Your task to perform on an android device: check out phone information Image 0: 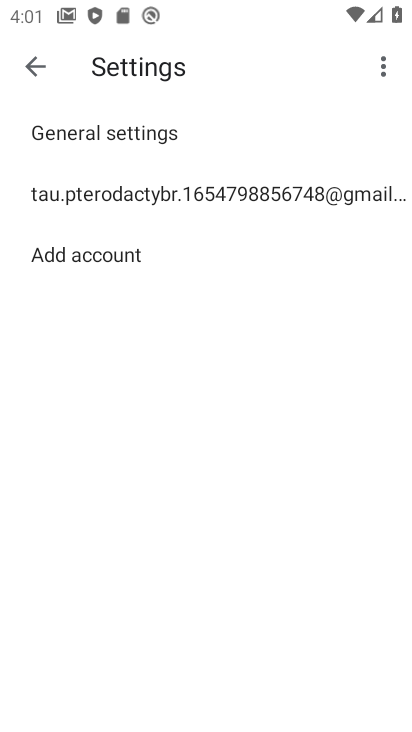
Step 0: press home button
Your task to perform on an android device: check out phone information Image 1: 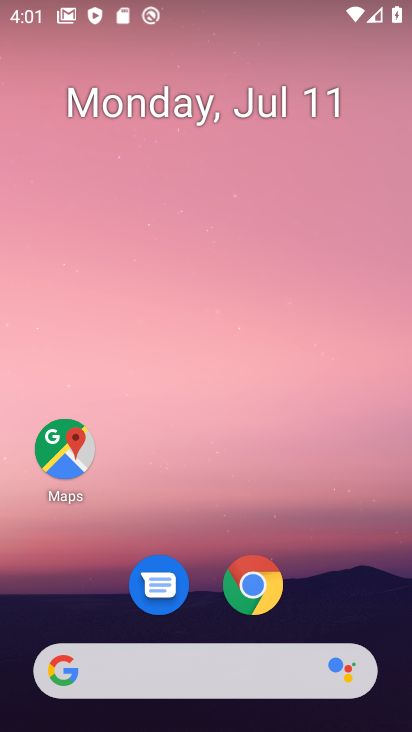
Step 1: drag from (238, 482) to (345, 32)
Your task to perform on an android device: check out phone information Image 2: 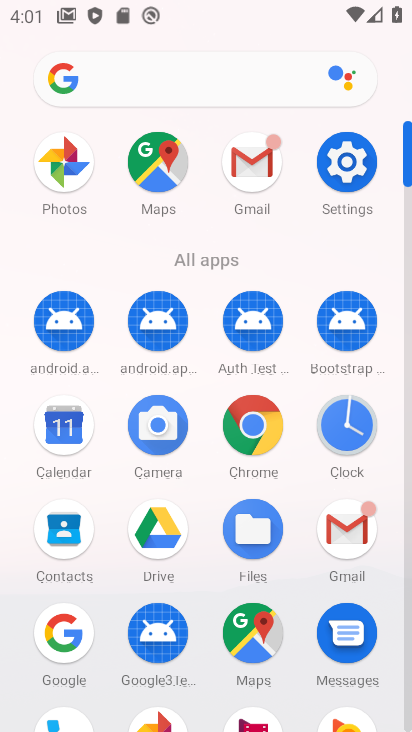
Step 2: drag from (205, 594) to (225, 357)
Your task to perform on an android device: check out phone information Image 3: 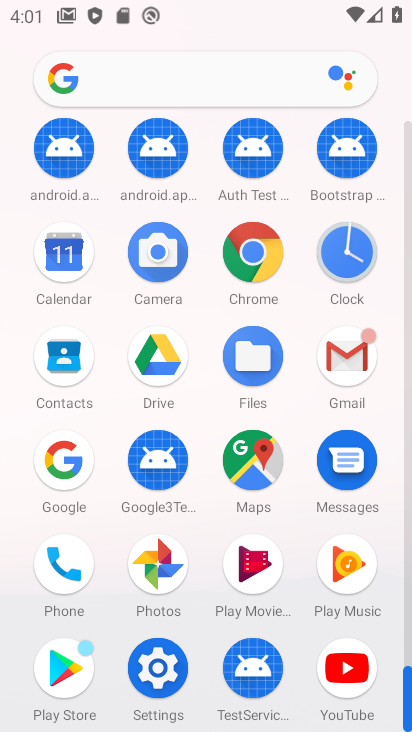
Step 3: click (53, 547)
Your task to perform on an android device: check out phone information Image 4: 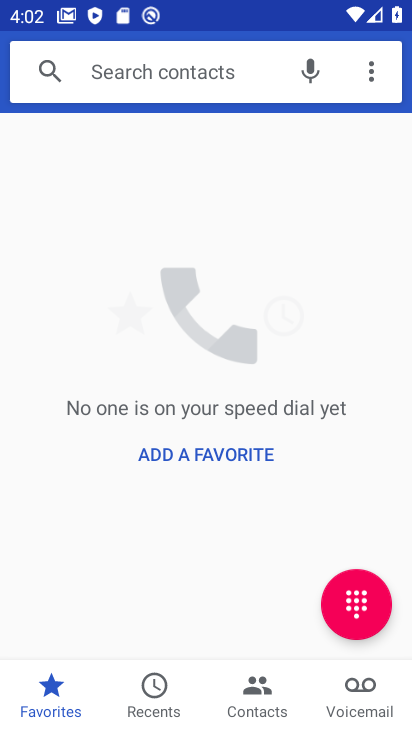
Step 4: click (370, 76)
Your task to perform on an android device: check out phone information Image 5: 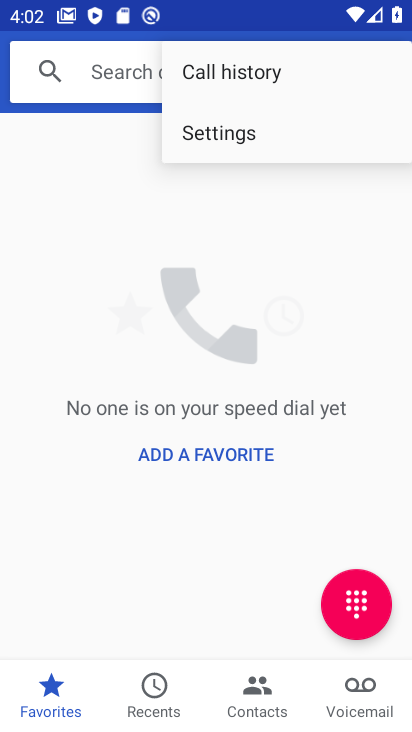
Step 5: click (293, 135)
Your task to perform on an android device: check out phone information Image 6: 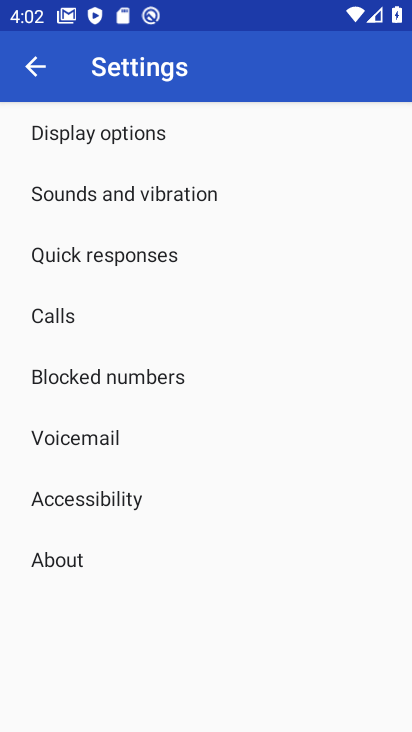
Step 6: click (65, 555)
Your task to perform on an android device: check out phone information Image 7: 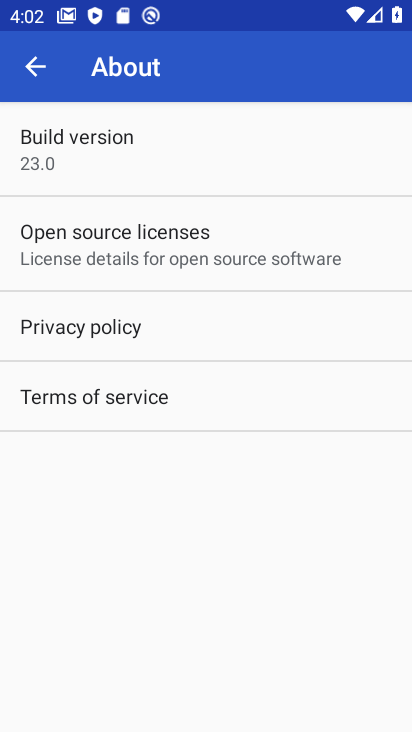
Step 7: task complete